Your task to perform on an android device: turn on javascript in the chrome app Image 0: 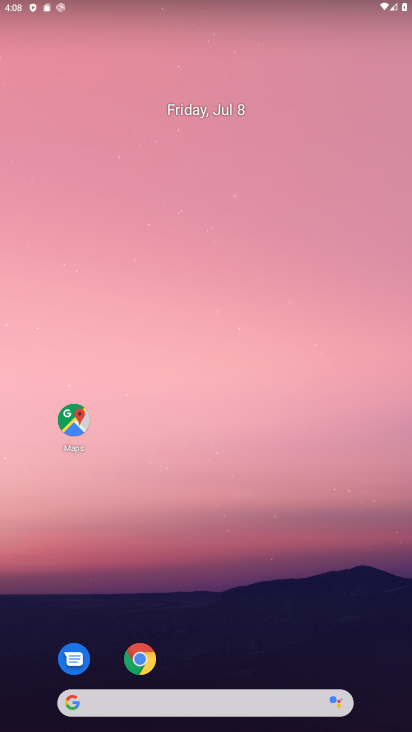
Step 0: drag from (297, 588) to (303, 49)
Your task to perform on an android device: turn on javascript in the chrome app Image 1: 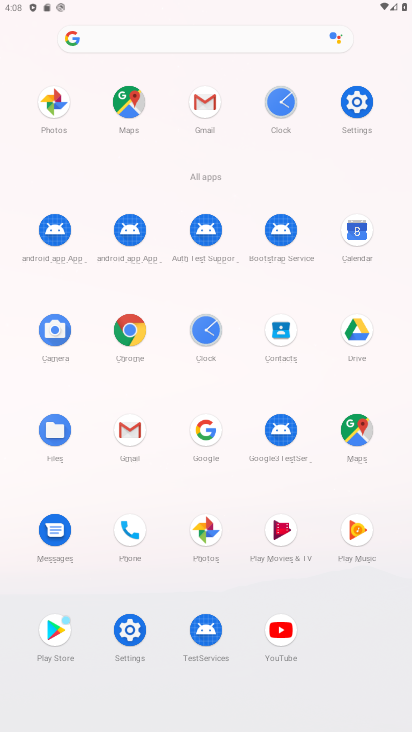
Step 1: click (127, 340)
Your task to perform on an android device: turn on javascript in the chrome app Image 2: 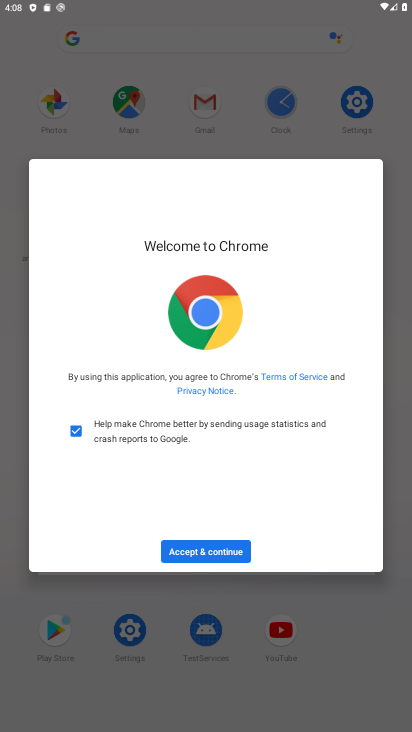
Step 2: click (224, 545)
Your task to perform on an android device: turn on javascript in the chrome app Image 3: 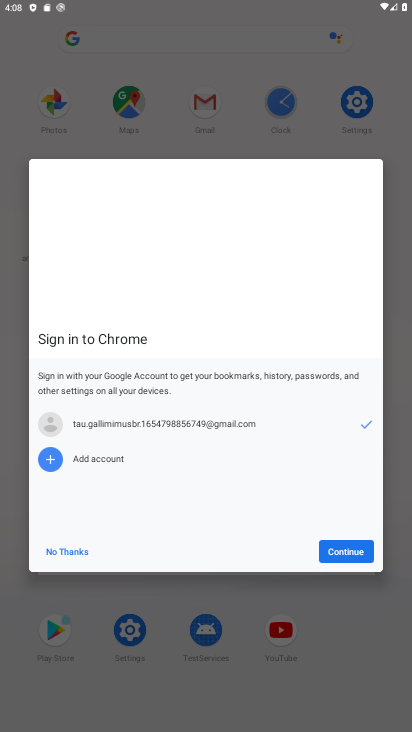
Step 3: click (366, 546)
Your task to perform on an android device: turn on javascript in the chrome app Image 4: 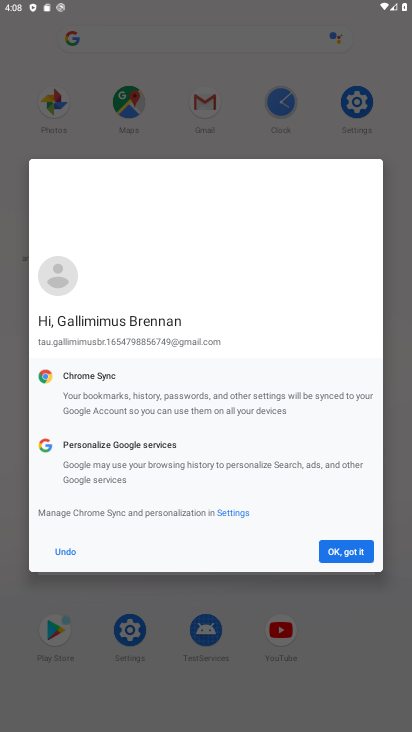
Step 4: click (366, 546)
Your task to perform on an android device: turn on javascript in the chrome app Image 5: 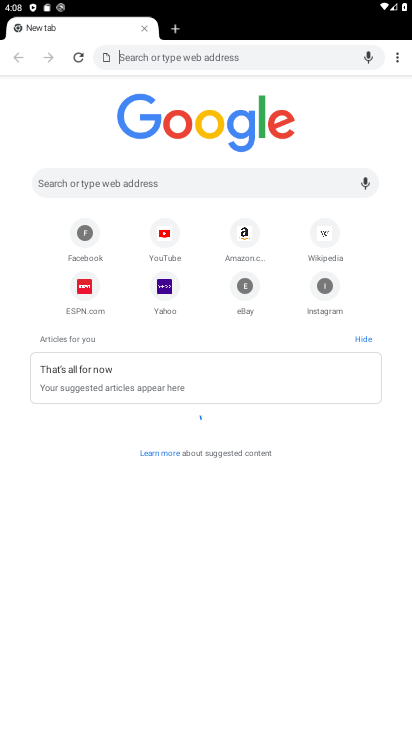
Step 5: drag from (394, 57) to (271, 260)
Your task to perform on an android device: turn on javascript in the chrome app Image 6: 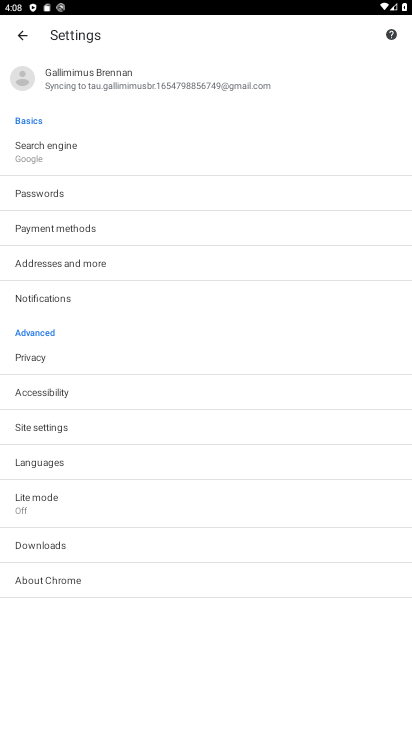
Step 6: click (52, 422)
Your task to perform on an android device: turn on javascript in the chrome app Image 7: 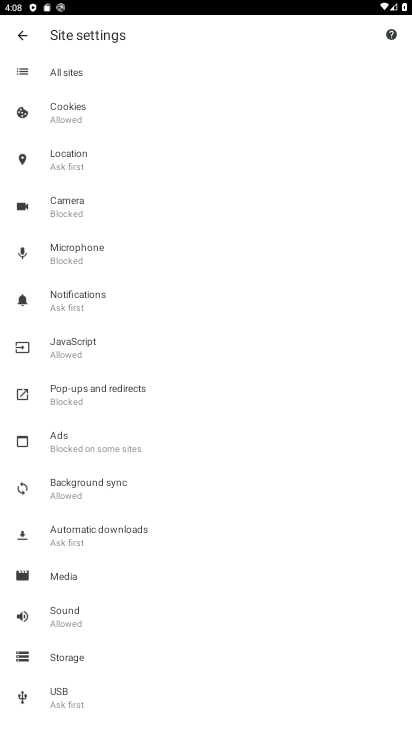
Step 7: click (67, 344)
Your task to perform on an android device: turn on javascript in the chrome app Image 8: 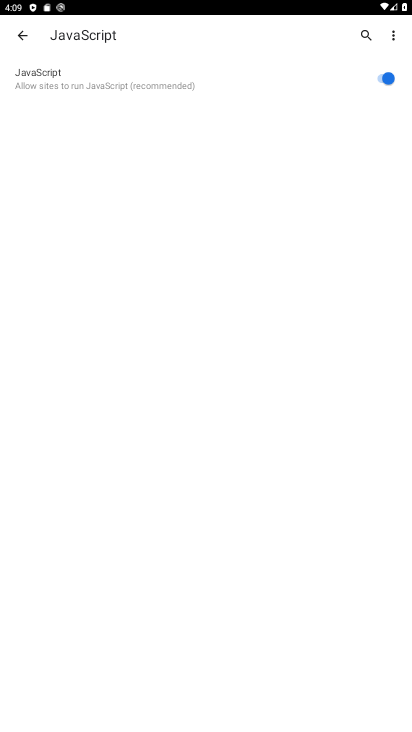
Step 8: task complete